Your task to perform on an android device: add a contact in the contacts app Image 0: 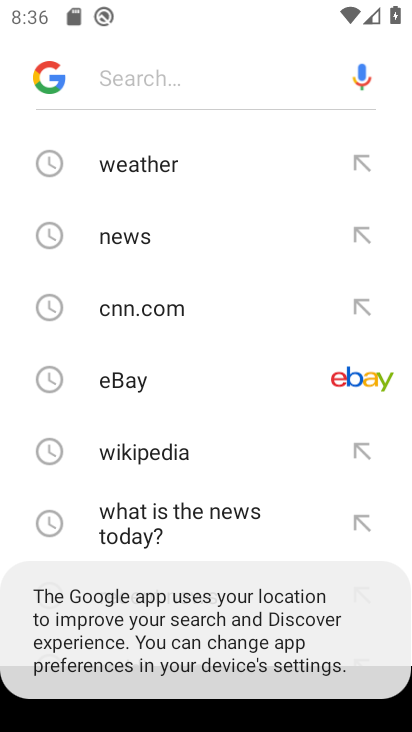
Step 0: press home button
Your task to perform on an android device: add a contact in the contacts app Image 1: 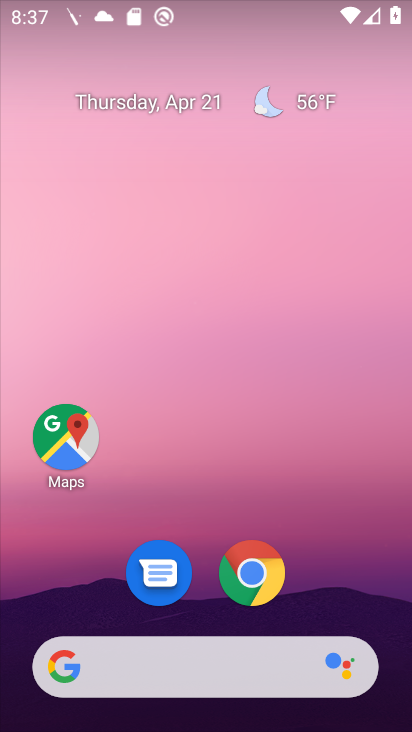
Step 1: drag from (218, 505) to (310, 90)
Your task to perform on an android device: add a contact in the contacts app Image 2: 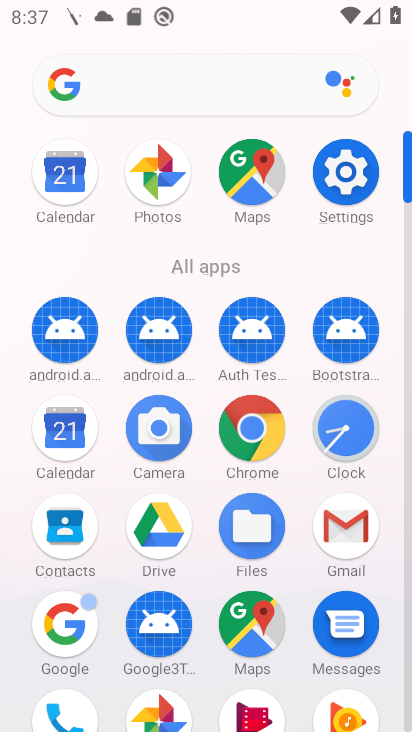
Step 2: click (70, 523)
Your task to perform on an android device: add a contact in the contacts app Image 3: 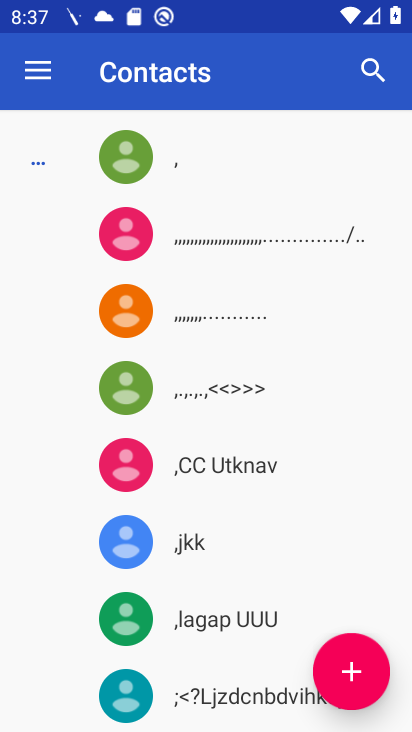
Step 3: click (355, 668)
Your task to perform on an android device: add a contact in the contacts app Image 4: 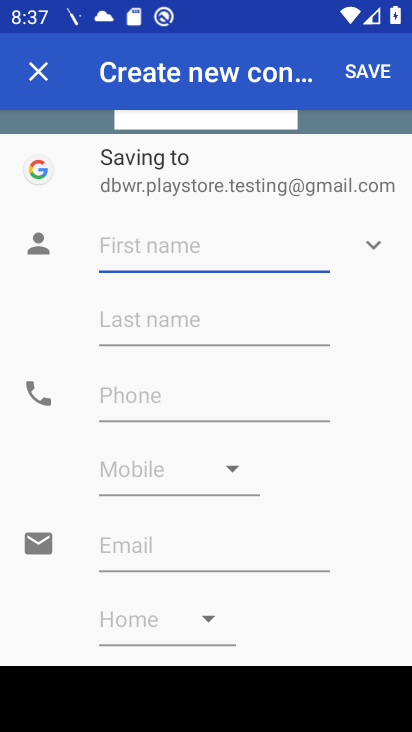
Step 4: type "Suryabhan"
Your task to perform on an android device: add a contact in the contacts app Image 5: 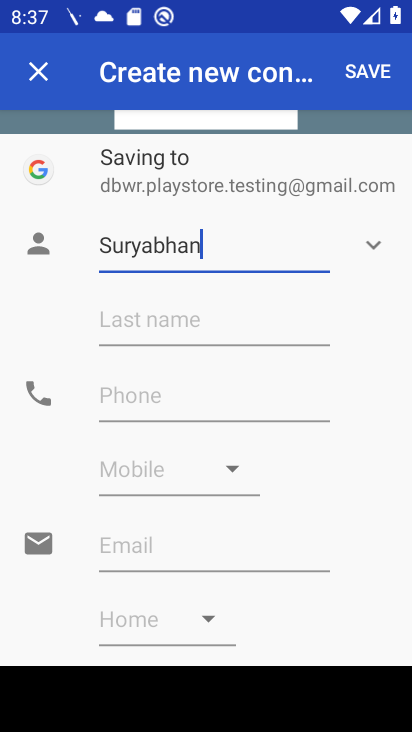
Step 5: click (199, 311)
Your task to perform on an android device: add a contact in the contacts app Image 6: 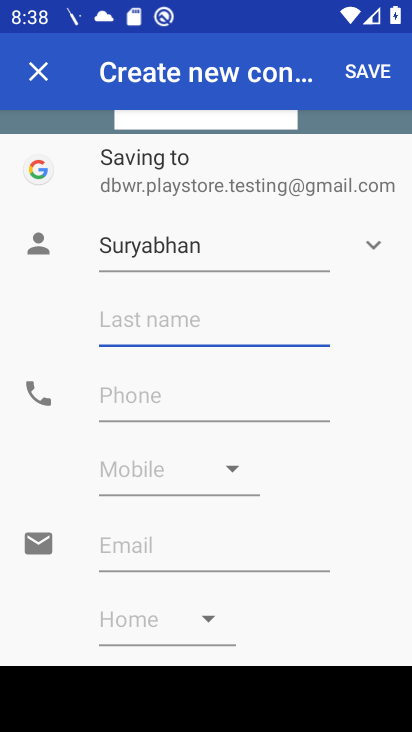
Step 6: type "Pathak"
Your task to perform on an android device: add a contact in the contacts app Image 7: 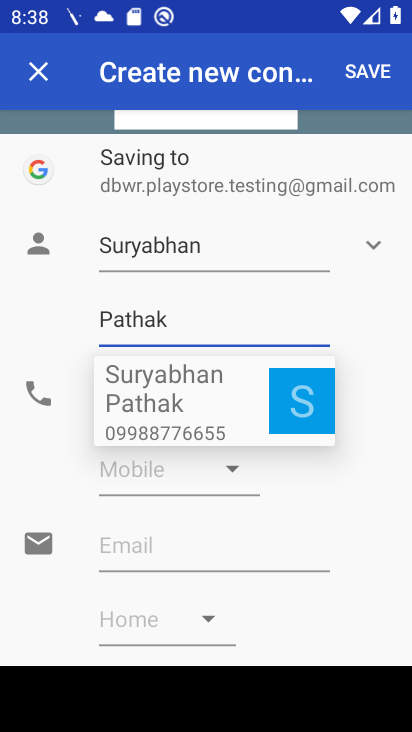
Step 7: click (277, 390)
Your task to perform on an android device: add a contact in the contacts app Image 8: 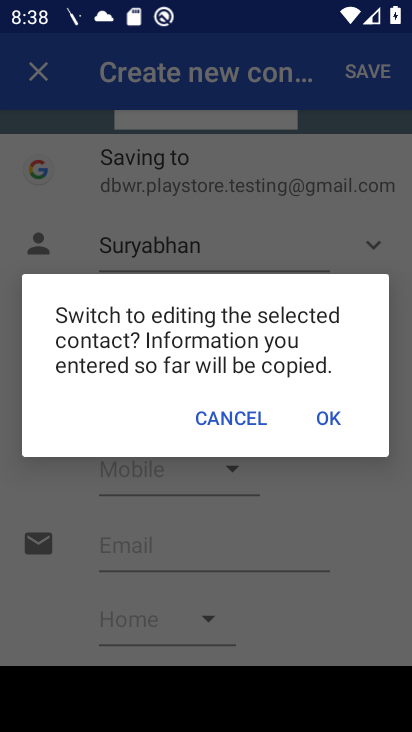
Step 8: click (326, 410)
Your task to perform on an android device: add a contact in the contacts app Image 9: 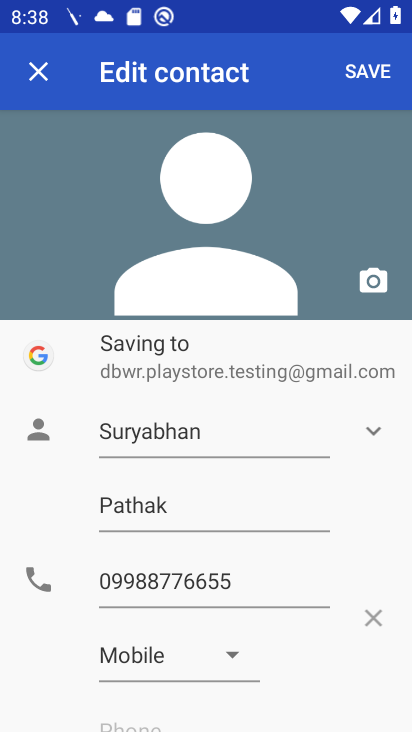
Step 9: click (378, 72)
Your task to perform on an android device: add a contact in the contacts app Image 10: 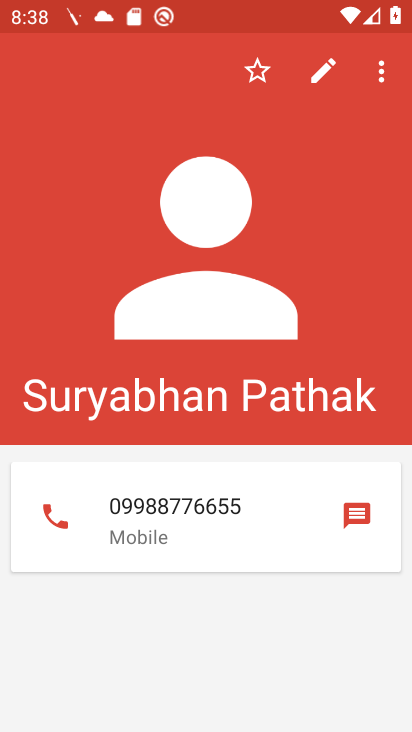
Step 10: task complete